Your task to perform on an android device: Open Reddit.com Image 0: 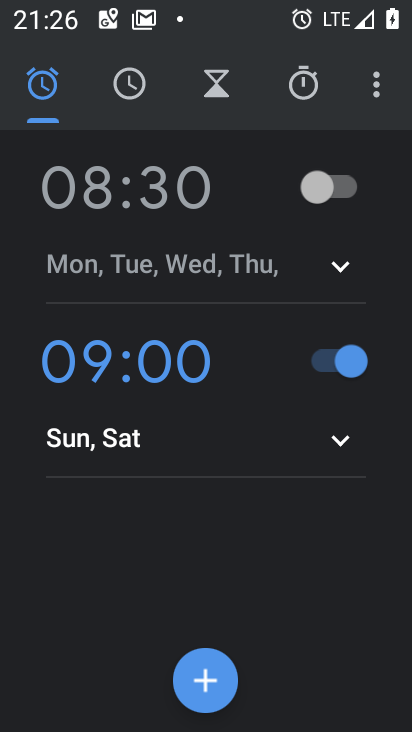
Step 0: press home button
Your task to perform on an android device: Open Reddit.com Image 1: 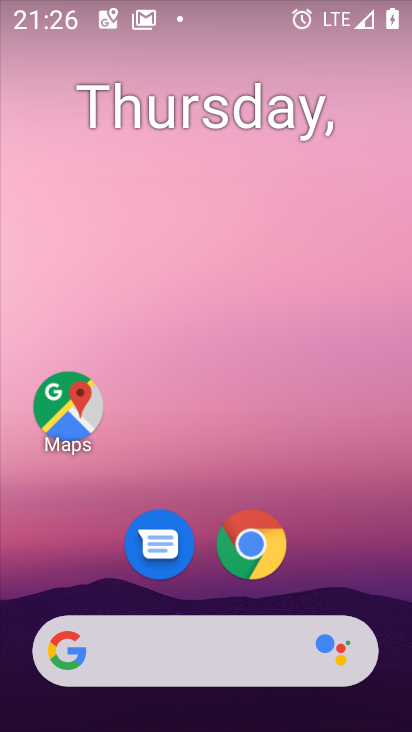
Step 1: click (151, 659)
Your task to perform on an android device: Open Reddit.com Image 2: 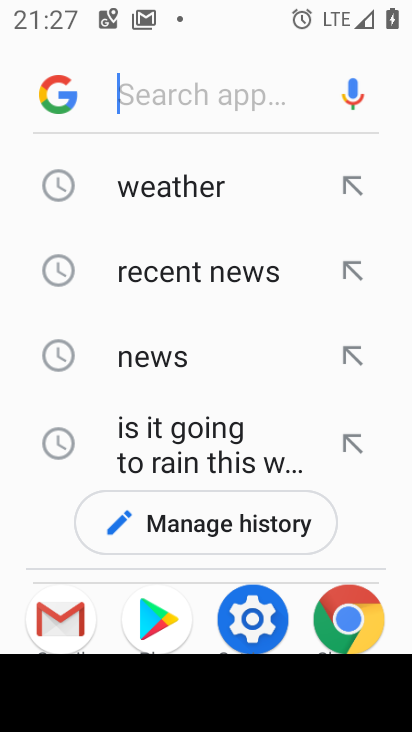
Step 2: type "reddit.com"
Your task to perform on an android device: Open Reddit.com Image 3: 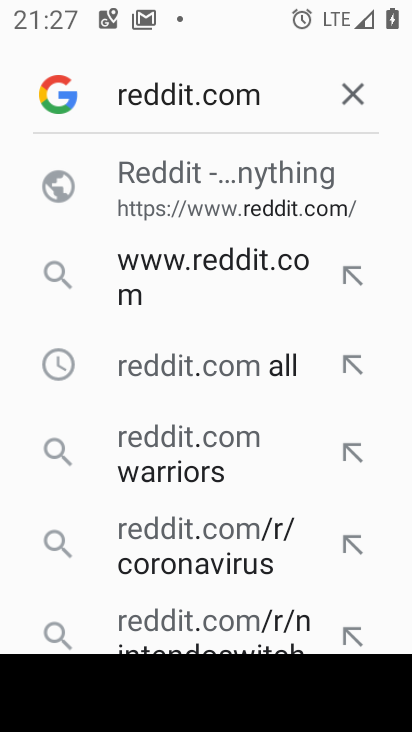
Step 3: click (290, 167)
Your task to perform on an android device: Open Reddit.com Image 4: 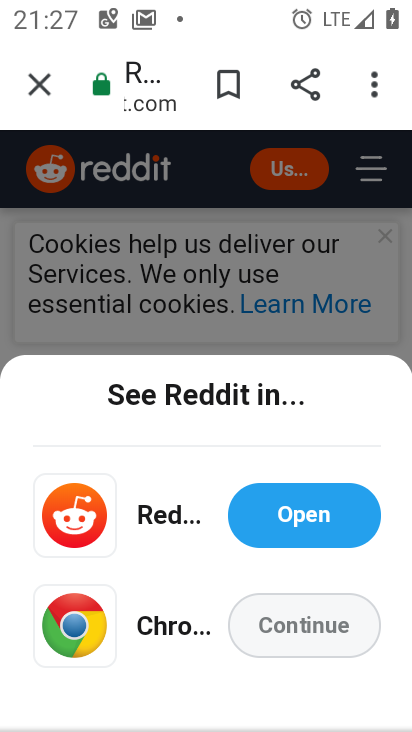
Step 4: task complete